Your task to perform on an android device: See recent photos Image 0: 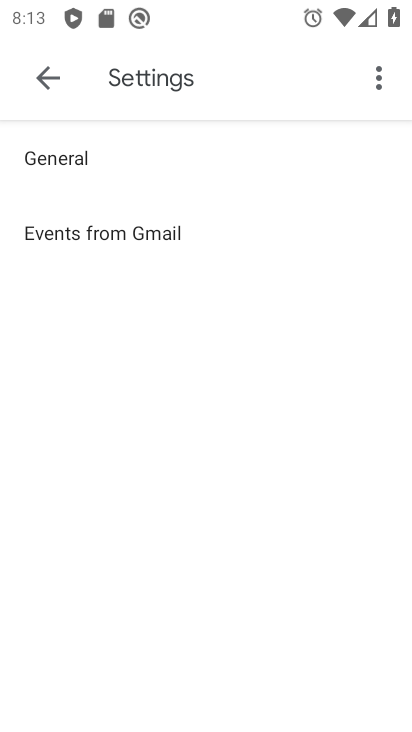
Step 0: press home button
Your task to perform on an android device: See recent photos Image 1: 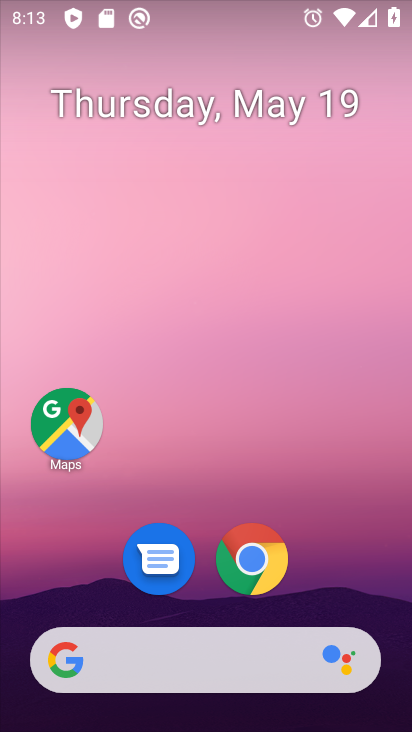
Step 1: drag from (375, 636) to (397, 5)
Your task to perform on an android device: See recent photos Image 2: 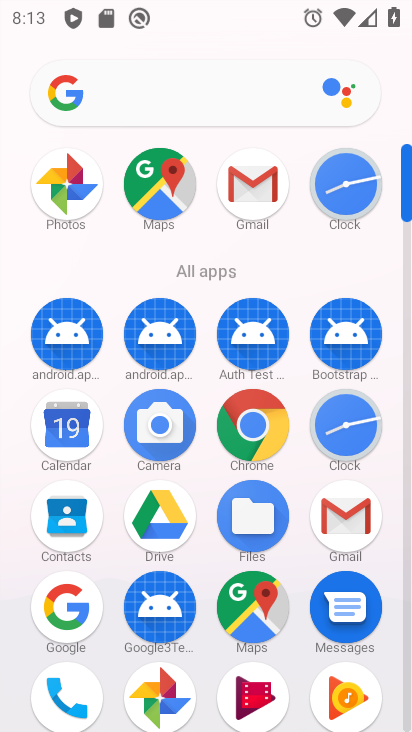
Step 2: click (157, 696)
Your task to perform on an android device: See recent photos Image 3: 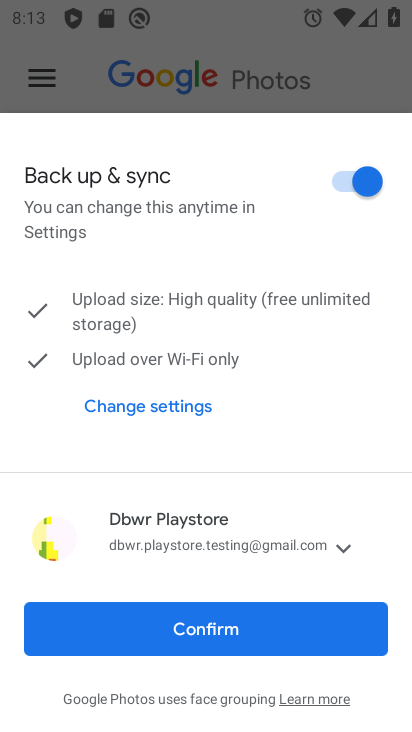
Step 3: click (205, 624)
Your task to perform on an android device: See recent photos Image 4: 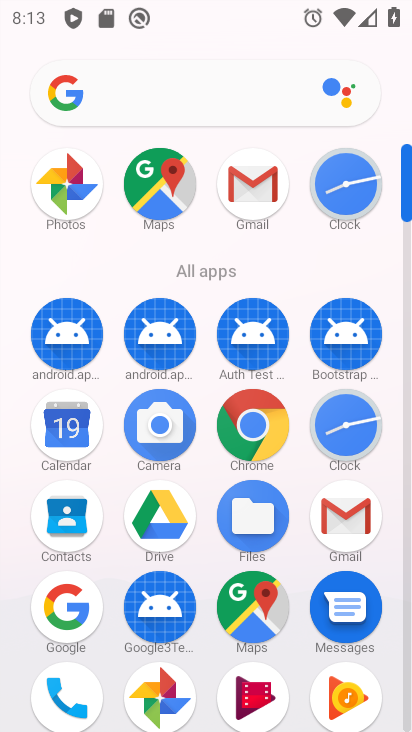
Step 4: click (193, 712)
Your task to perform on an android device: See recent photos Image 5: 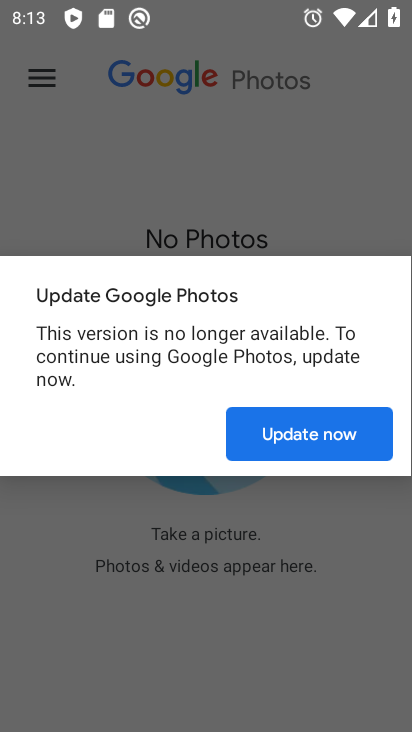
Step 5: click (352, 426)
Your task to perform on an android device: See recent photos Image 6: 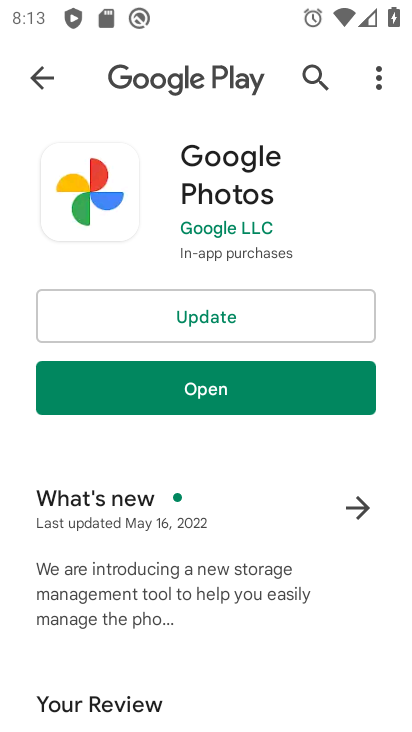
Step 6: click (218, 325)
Your task to perform on an android device: See recent photos Image 7: 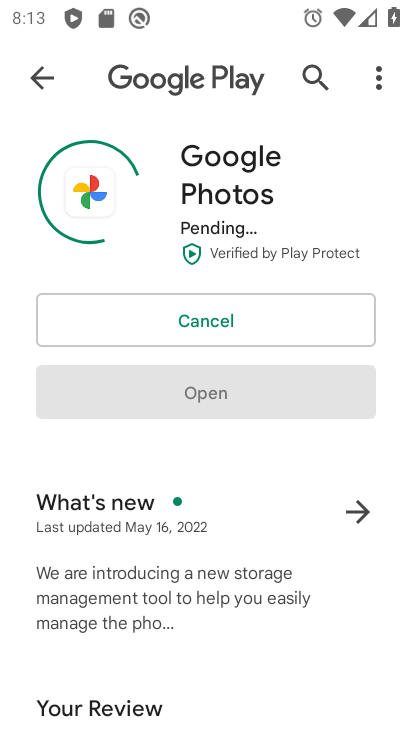
Step 7: drag from (246, 637) to (198, 155)
Your task to perform on an android device: See recent photos Image 8: 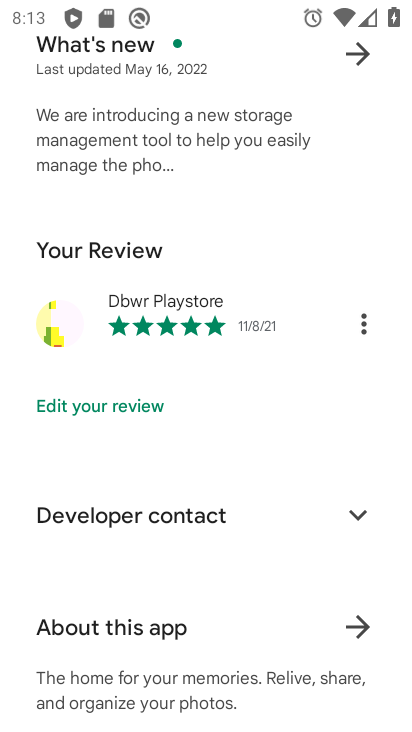
Step 8: drag from (201, 365) to (310, 722)
Your task to perform on an android device: See recent photos Image 9: 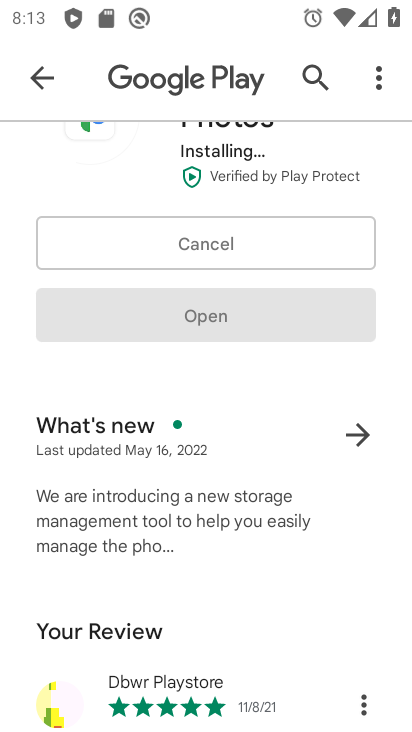
Step 9: drag from (267, 148) to (264, 678)
Your task to perform on an android device: See recent photos Image 10: 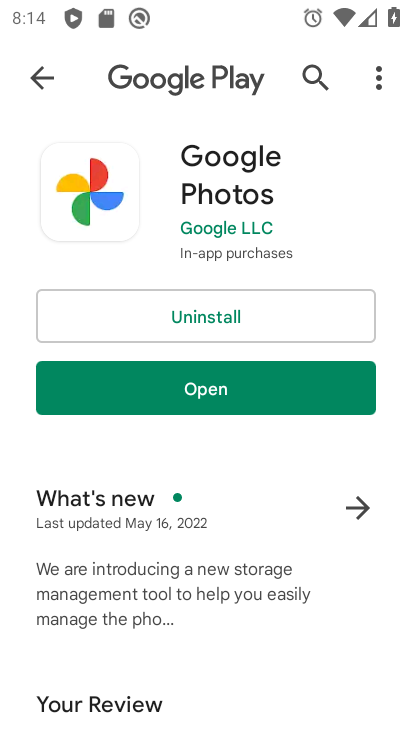
Step 10: click (178, 375)
Your task to perform on an android device: See recent photos Image 11: 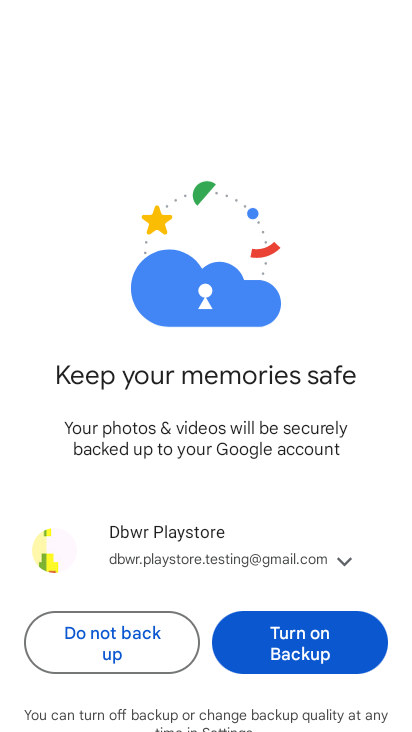
Step 11: click (276, 619)
Your task to perform on an android device: See recent photos Image 12: 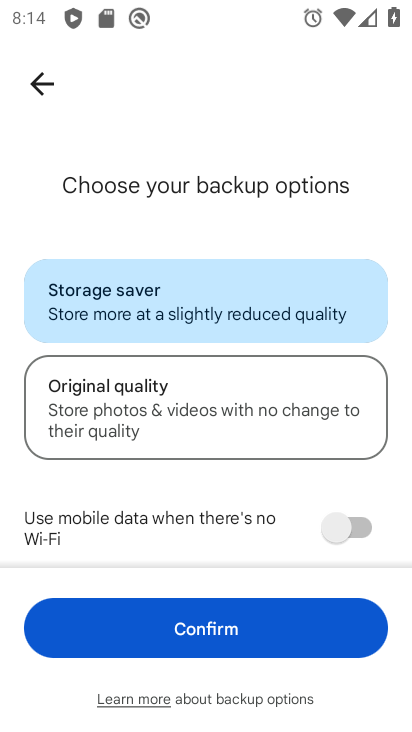
Step 12: click (276, 619)
Your task to perform on an android device: See recent photos Image 13: 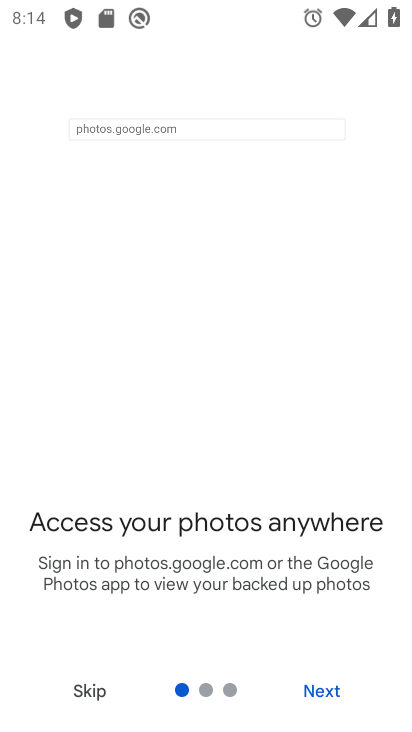
Step 13: click (315, 706)
Your task to perform on an android device: See recent photos Image 14: 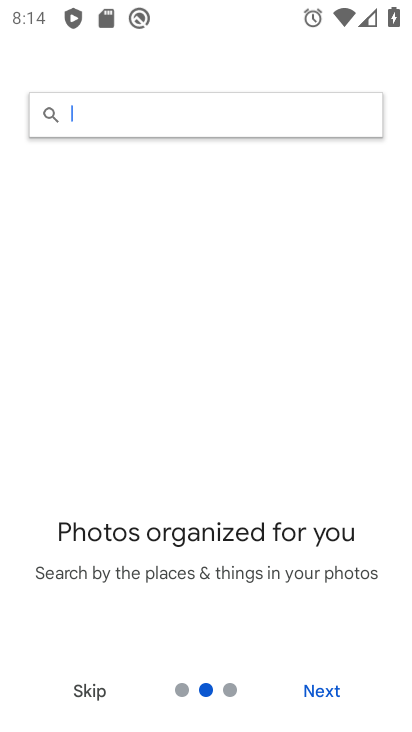
Step 14: click (315, 706)
Your task to perform on an android device: See recent photos Image 15: 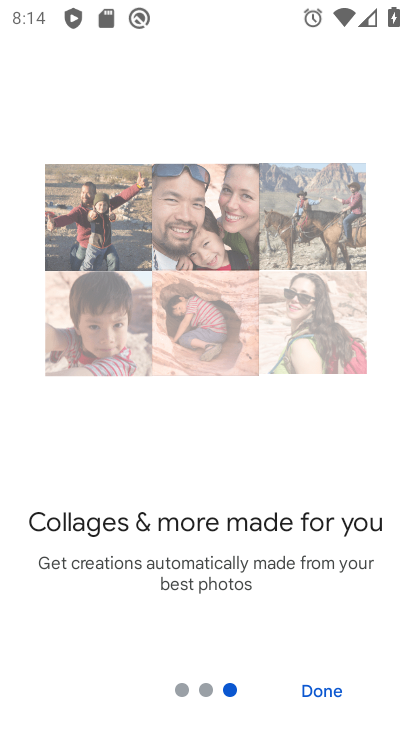
Step 15: click (315, 706)
Your task to perform on an android device: See recent photos Image 16: 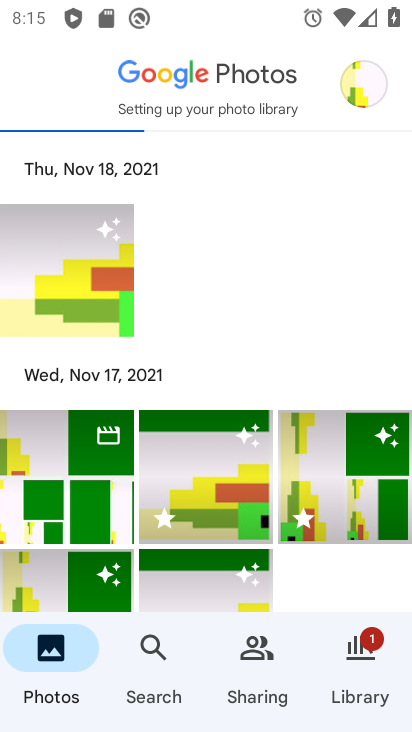
Step 16: task complete